Your task to perform on an android device: check the backup settings in the google photos Image 0: 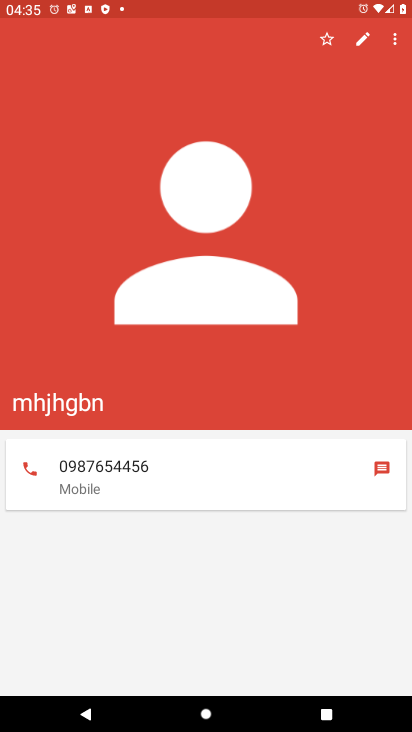
Step 0: press home button
Your task to perform on an android device: check the backup settings in the google photos Image 1: 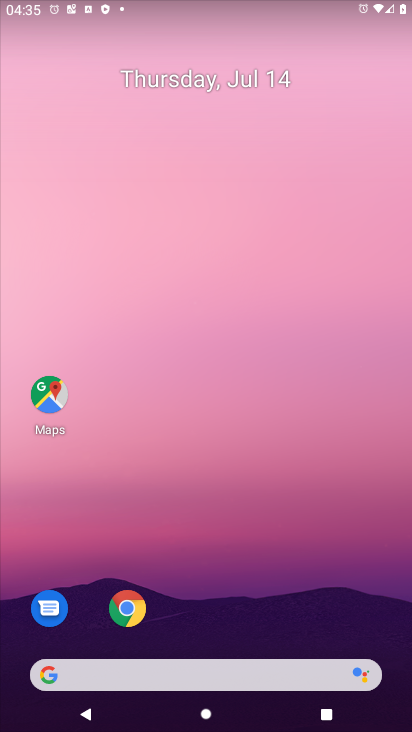
Step 1: drag from (390, 635) to (331, 112)
Your task to perform on an android device: check the backup settings in the google photos Image 2: 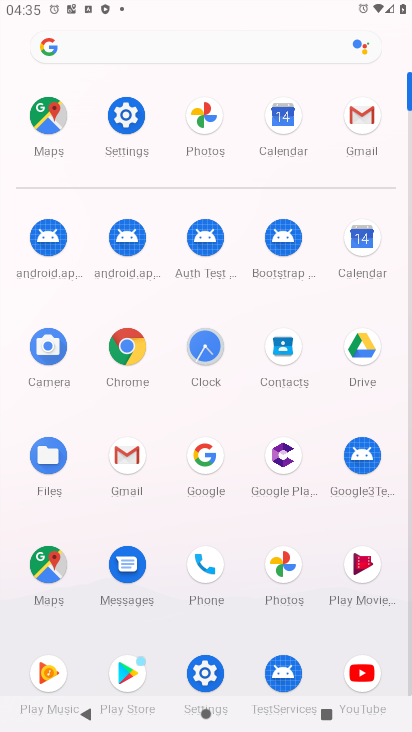
Step 2: click (285, 562)
Your task to perform on an android device: check the backup settings in the google photos Image 3: 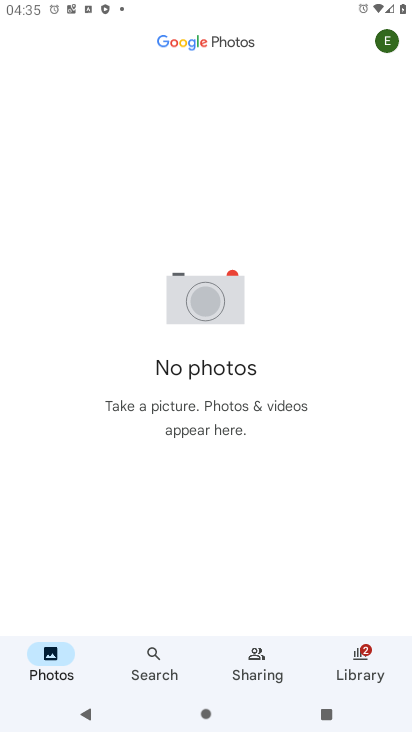
Step 3: click (384, 39)
Your task to perform on an android device: check the backup settings in the google photos Image 4: 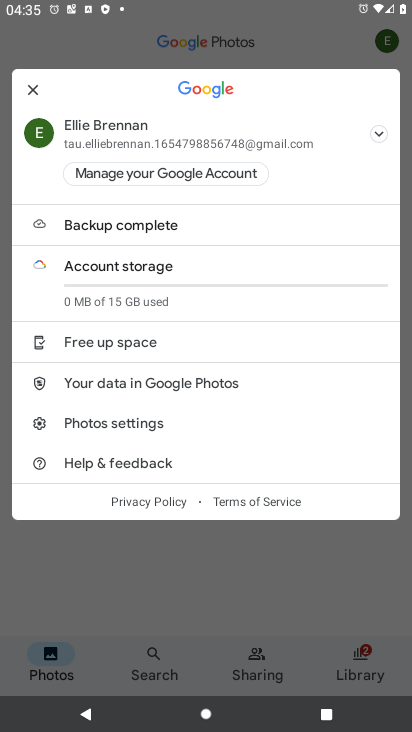
Step 4: click (109, 429)
Your task to perform on an android device: check the backup settings in the google photos Image 5: 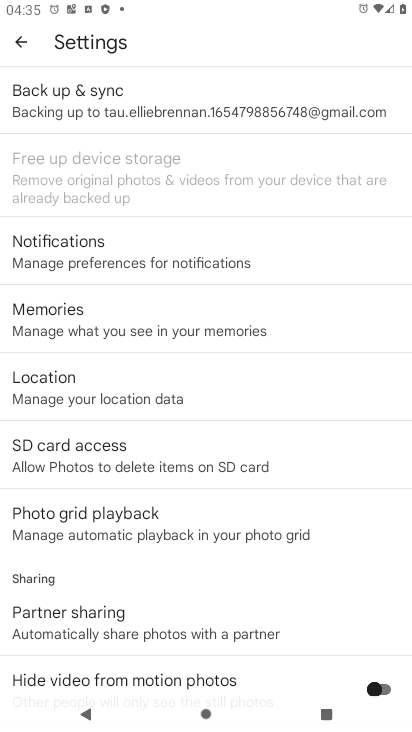
Step 5: click (71, 94)
Your task to perform on an android device: check the backup settings in the google photos Image 6: 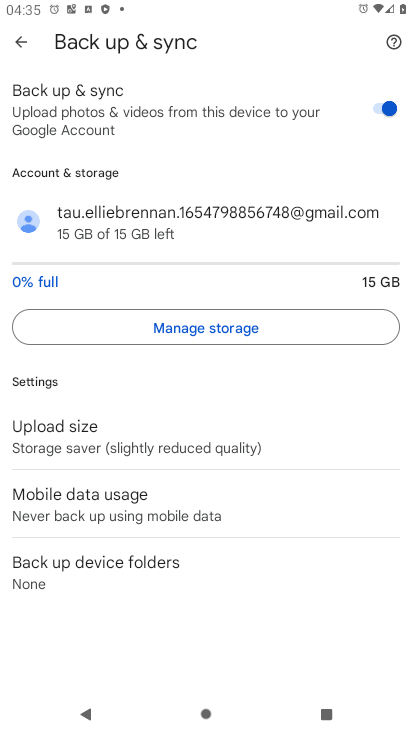
Step 6: task complete